Your task to perform on an android device: Go to wifi settings Image 0: 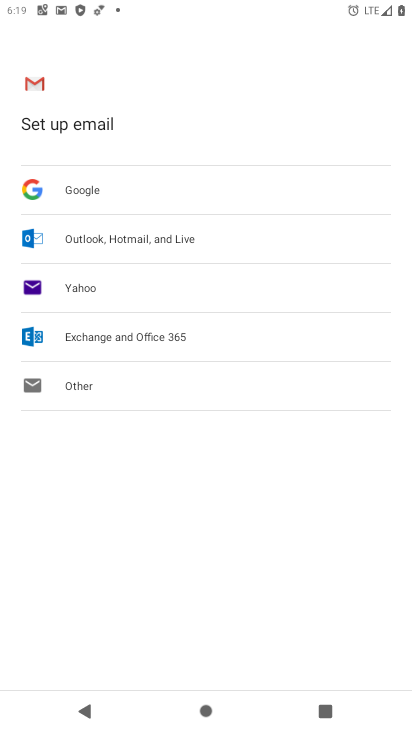
Step 0: press home button
Your task to perform on an android device: Go to wifi settings Image 1: 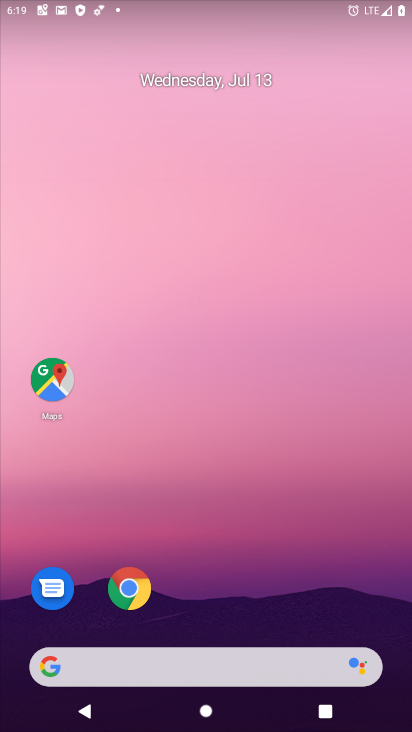
Step 1: drag from (172, 335) to (200, 49)
Your task to perform on an android device: Go to wifi settings Image 2: 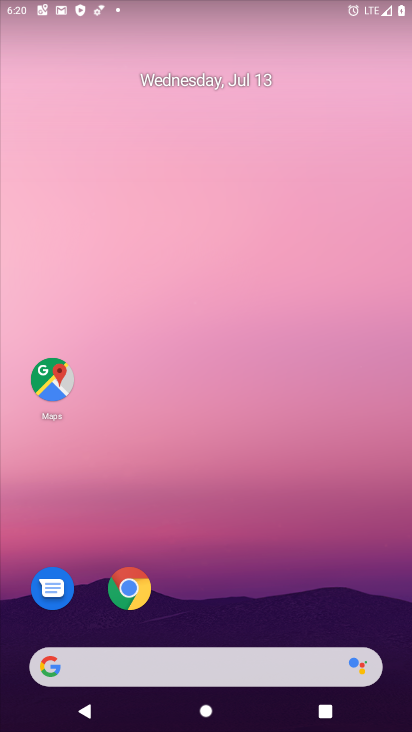
Step 2: drag from (191, 245) to (214, 71)
Your task to perform on an android device: Go to wifi settings Image 3: 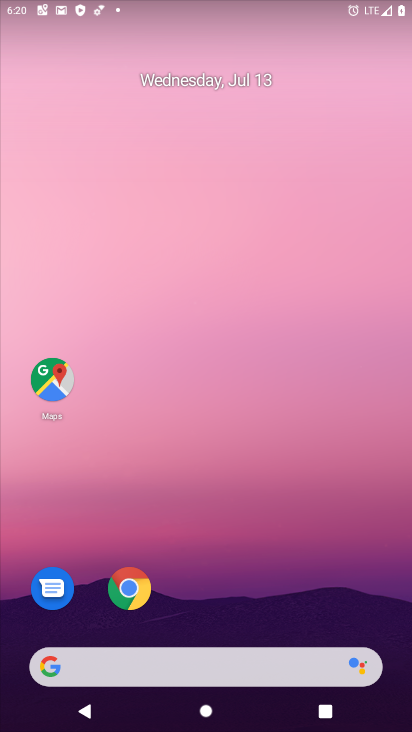
Step 3: drag from (177, 594) to (167, 93)
Your task to perform on an android device: Go to wifi settings Image 4: 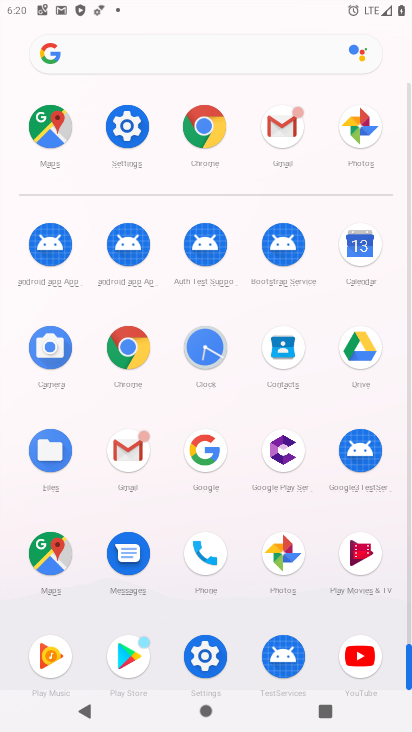
Step 4: click (128, 139)
Your task to perform on an android device: Go to wifi settings Image 5: 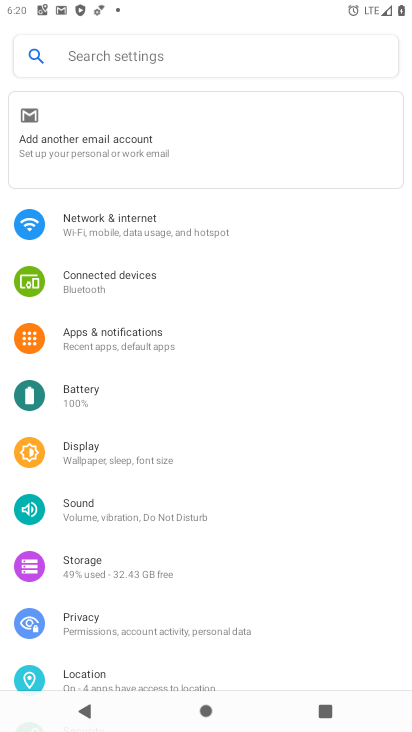
Step 5: click (98, 221)
Your task to perform on an android device: Go to wifi settings Image 6: 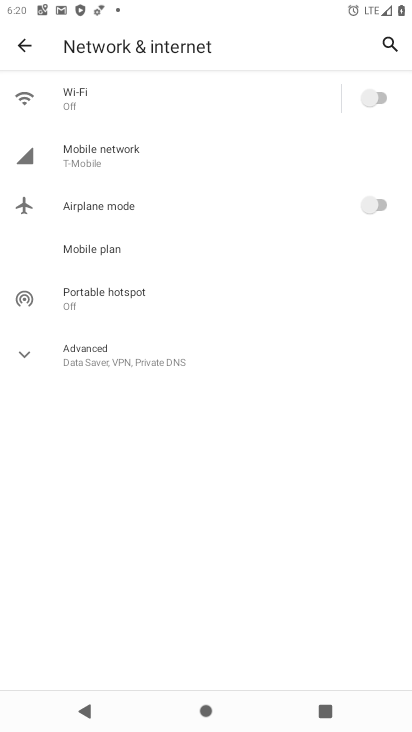
Step 6: click (207, 93)
Your task to perform on an android device: Go to wifi settings Image 7: 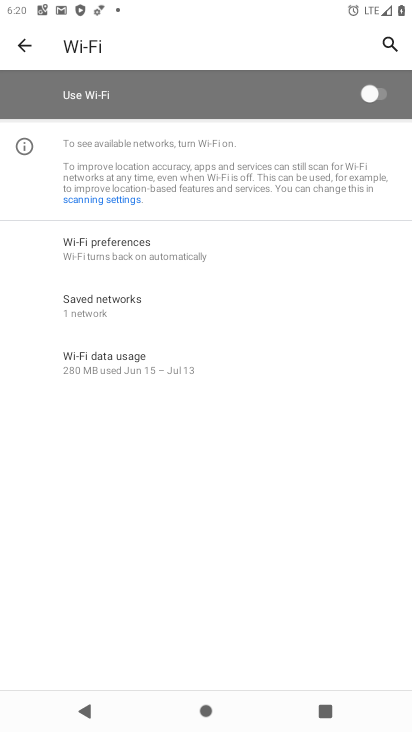
Step 7: task complete